Your task to perform on an android device: check out phone information Image 0: 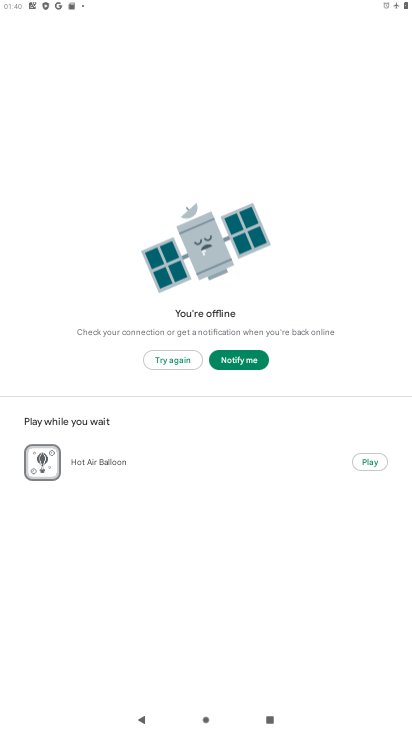
Step 0: press home button
Your task to perform on an android device: check out phone information Image 1: 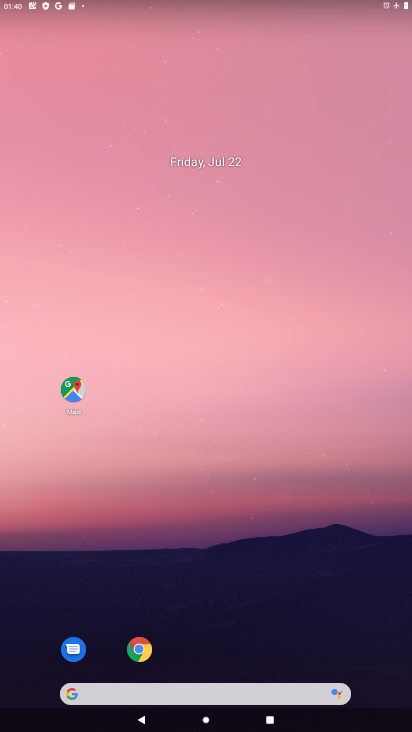
Step 1: drag from (274, 587) to (301, 32)
Your task to perform on an android device: check out phone information Image 2: 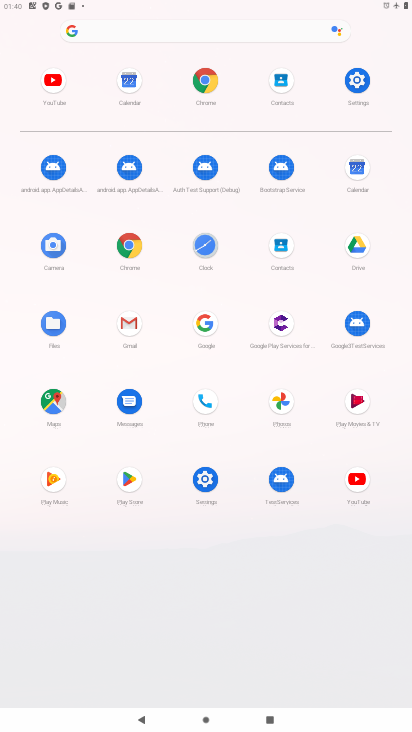
Step 2: click (211, 396)
Your task to perform on an android device: check out phone information Image 3: 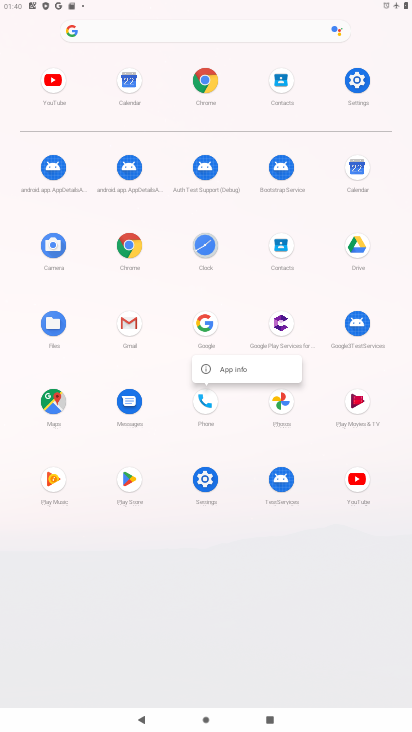
Step 3: click (230, 369)
Your task to perform on an android device: check out phone information Image 4: 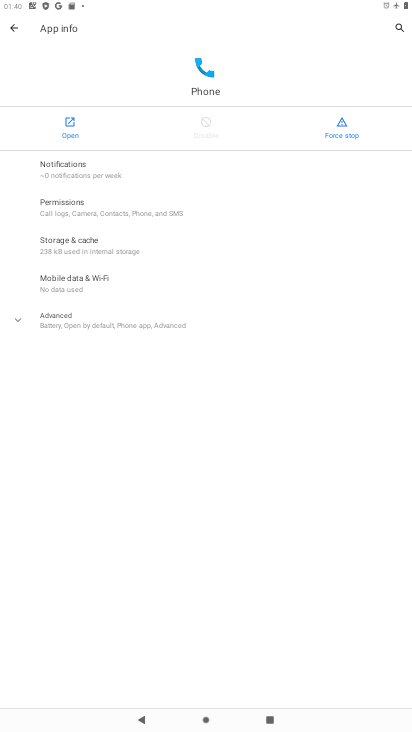
Step 4: click (162, 323)
Your task to perform on an android device: check out phone information Image 5: 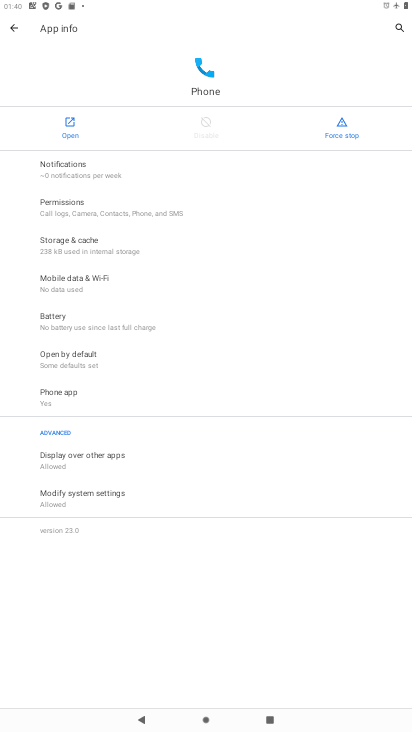
Step 5: task complete